Your task to perform on an android device: change the clock display to digital Image 0: 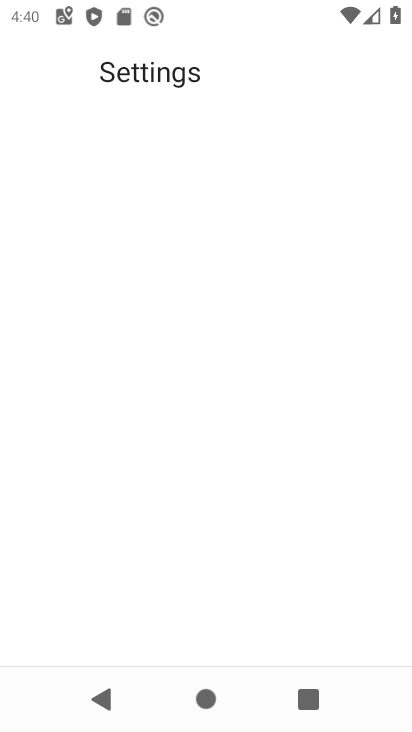
Step 0: drag from (339, 494) to (347, 21)
Your task to perform on an android device: change the clock display to digital Image 1: 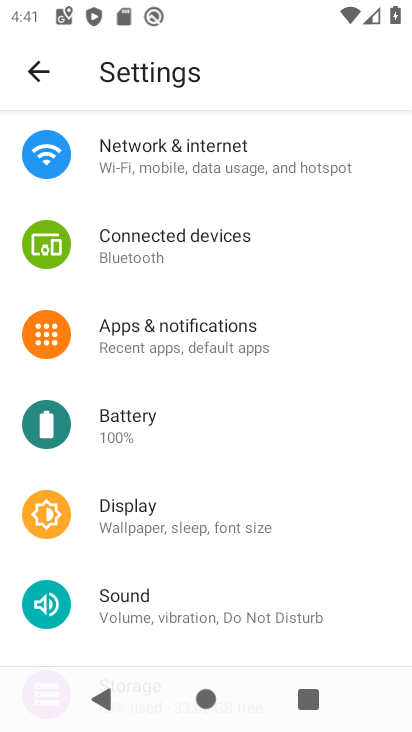
Step 1: press home button
Your task to perform on an android device: change the clock display to digital Image 2: 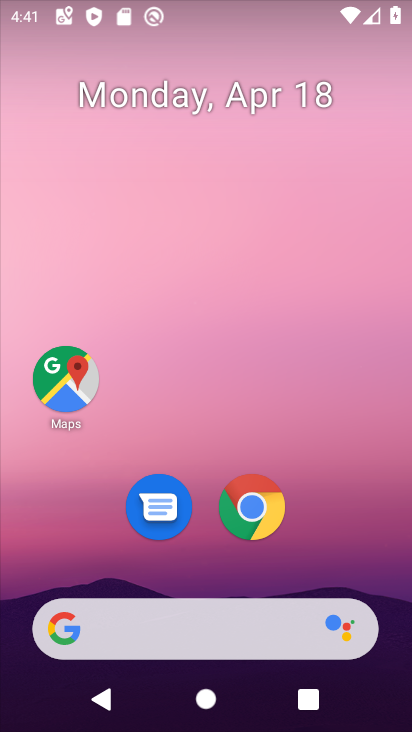
Step 2: drag from (293, 570) to (295, 120)
Your task to perform on an android device: change the clock display to digital Image 3: 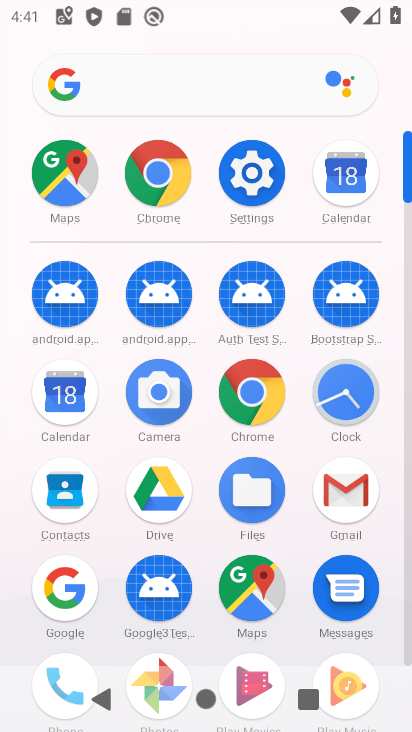
Step 3: click (346, 408)
Your task to perform on an android device: change the clock display to digital Image 4: 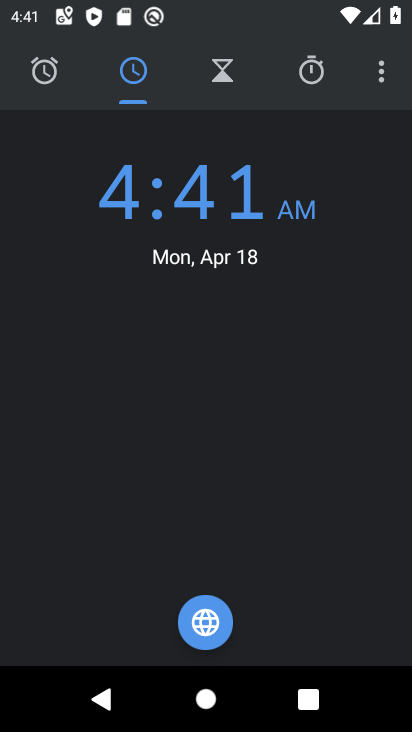
Step 4: click (382, 66)
Your task to perform on an android device: change the clock display to digital Image 5: 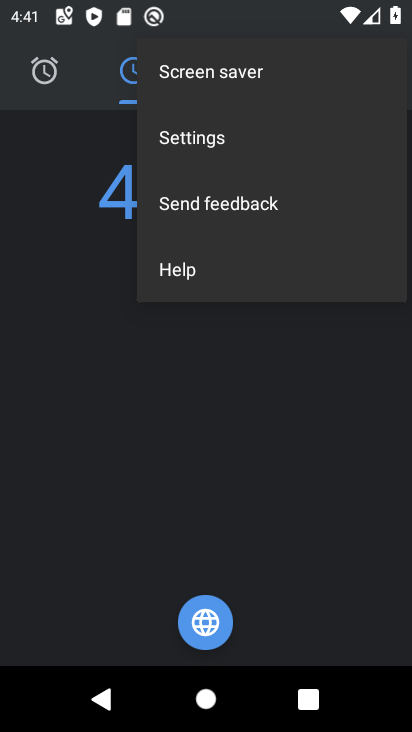
Step 5: click (237, 140)
Your task to perform on an android device: change the clock display to digital Image 6: 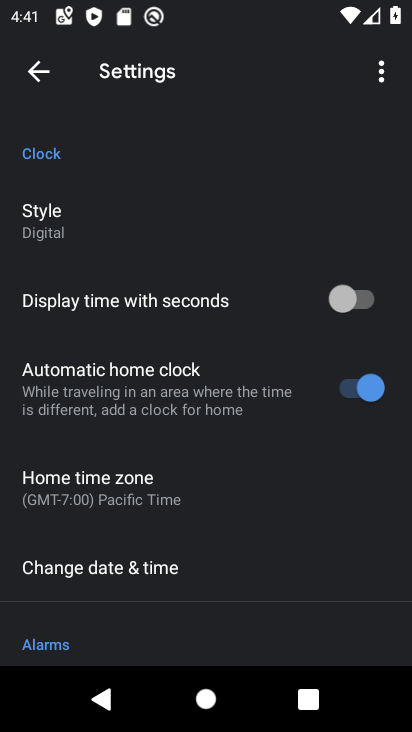
Step 6: click (150, 221)
Your task to perform on an android device: change the clock display to digital Image 7: 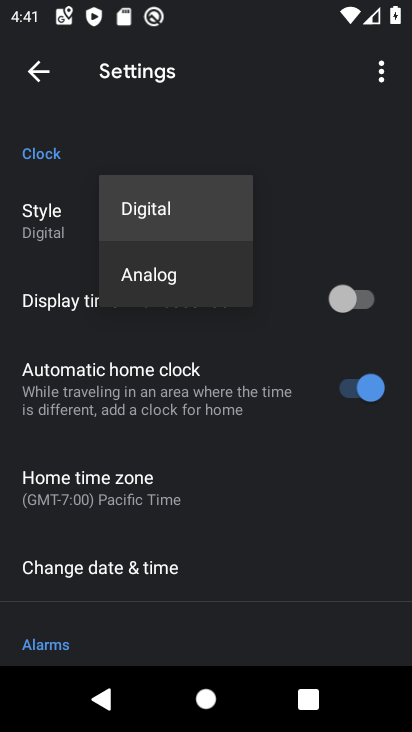
Step 7: click (222, 202)
Your task to perform on an android device: change the clock display to digital Image 8: 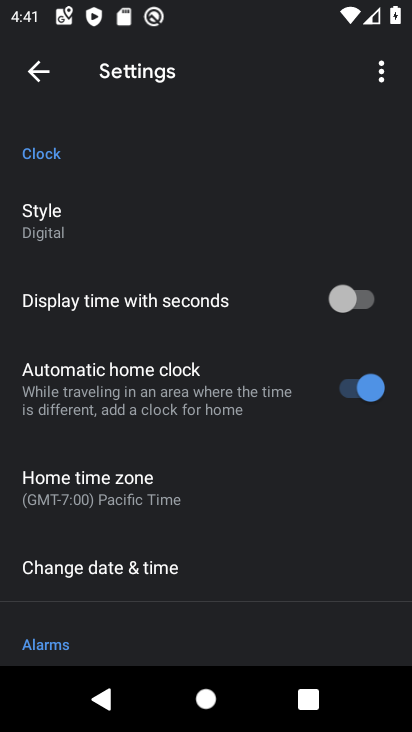
Step 8: task complete